Your task to perform on an android device: turn on the 12-hour format for clock Image 0: 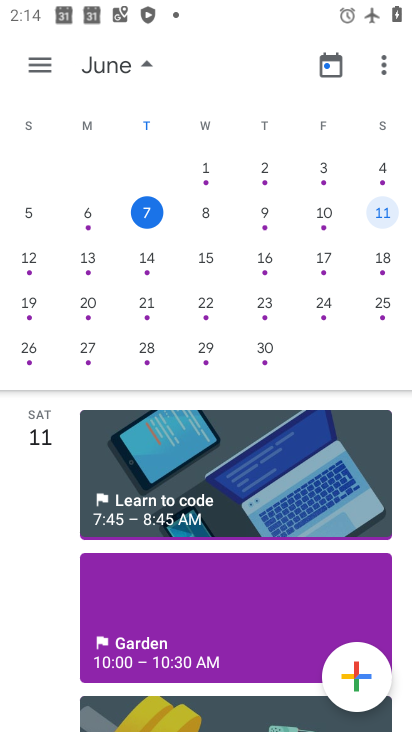
Step 0: press home button
Your task to perform on an android device: turn on the 12-hour format for clock Image 1: 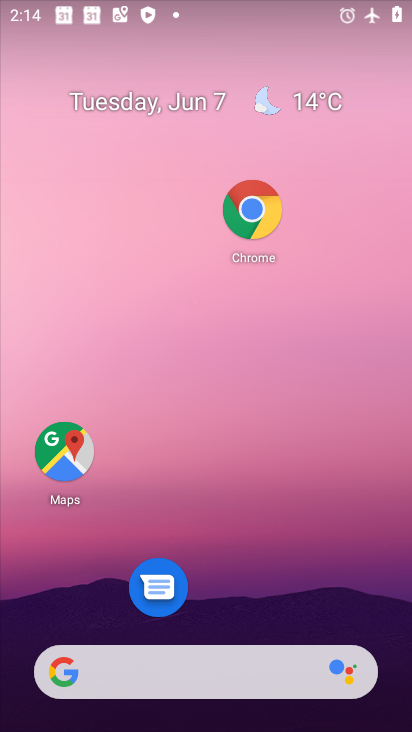
Step 1: drag from (295, 589) to (270, 131)
Your task to perform on an android device: turn on the 12-hour format for clock Image 2: 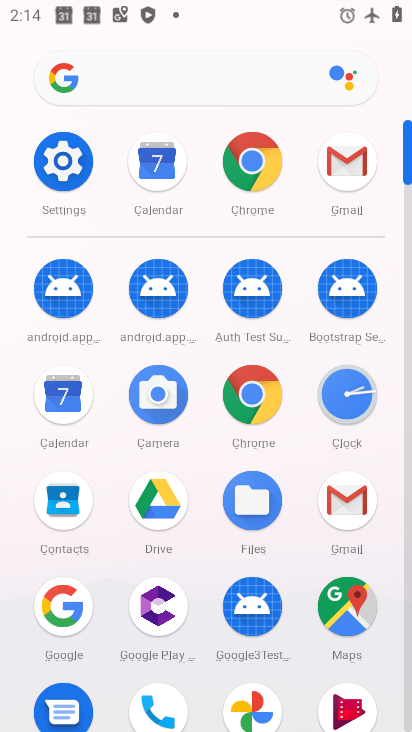
Step 2: click (367, 396)
Your task to perform on an android device: turn on the 12-hour format for clock Image 3: 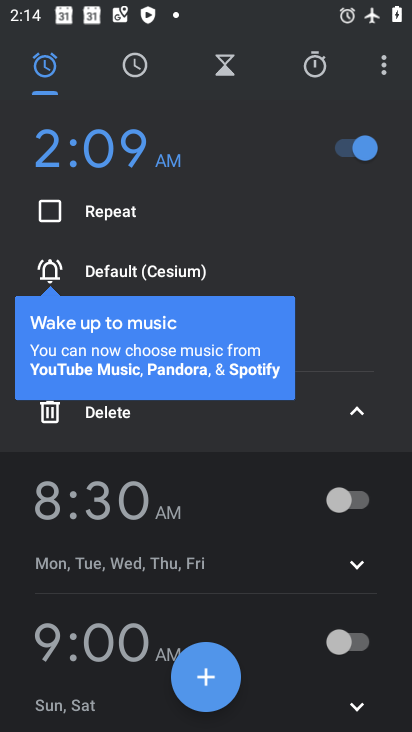
Step 3: click (380, 73)
Your task to perform on an android device: turn on the 12-hour format for clock Image 4: 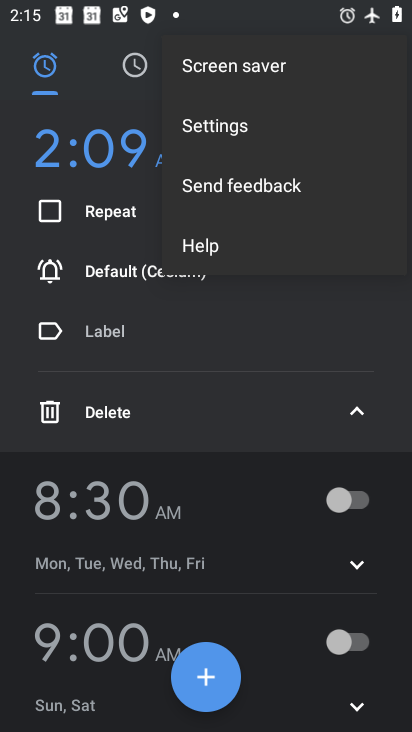
Step 4: click (243, 133)
Your task to perform on an android device: turn on the 12-hour format for clock Image 5: 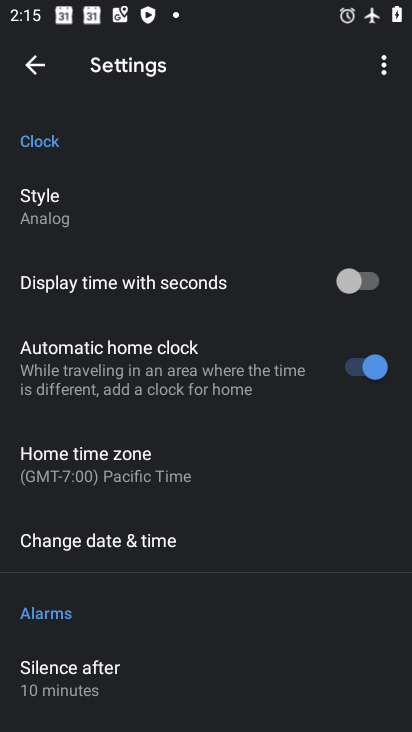
Step 5: click (156, 543)
Your task to perform on an android device: turn on the 12-hour format for clock Image 6: 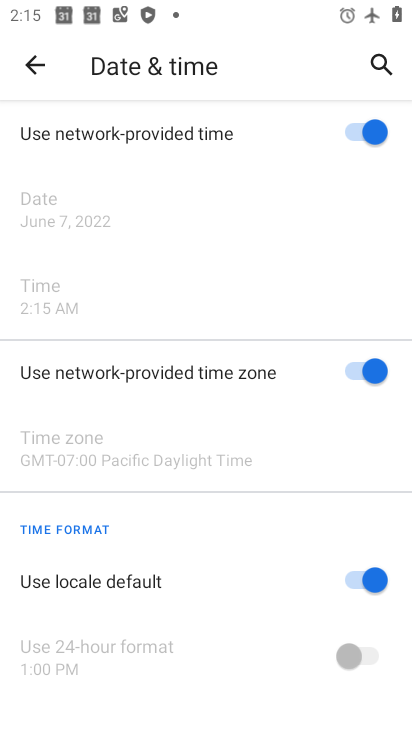
Step 6: task complete